Your task to perform on an android device: Go to Android settings Image 0: 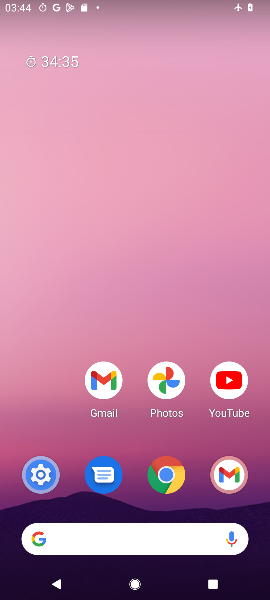
Step 0: drag from (64, 426) to (49, 144)
Your task to perform on an android device: Go to Android settings Image 1: 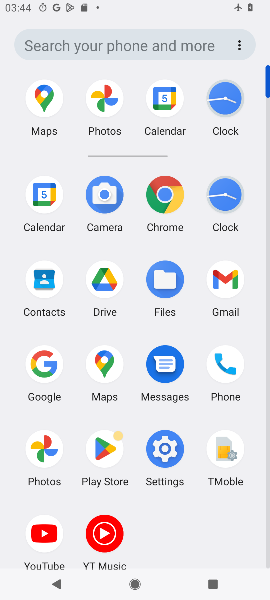
Step 1: click (167, 448)
Your task to perform on an android device: Go to Android settings Image 2: 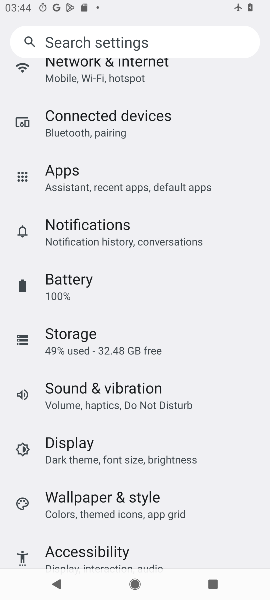
Step 2: drag from (214, 470) to (226, 353)
Your task to perform on an android device: Go to Android settings Image 3: 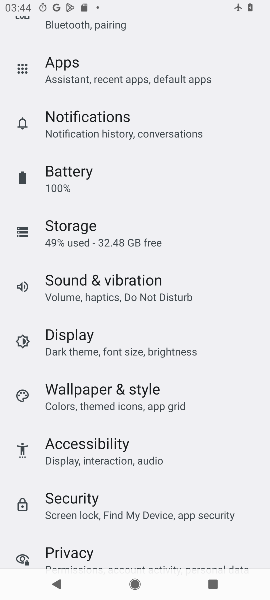
Step 3: drag from (222, 473) to (227, 359)
Your task to perform on an android device: Go to Android settings Image 4: 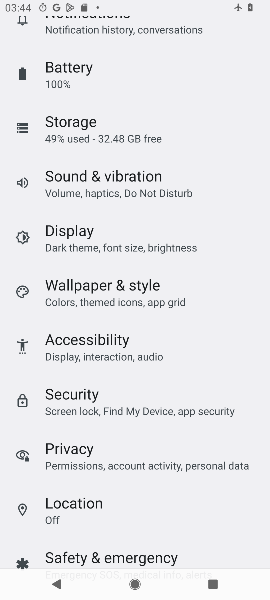
Step 4: drag from (216, 518) to (217, 407)
Your task to perform on an android device: Go to Android settings Image 5: 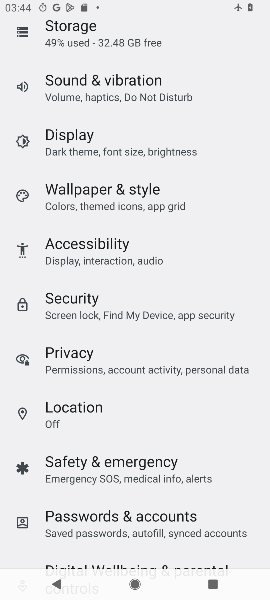
Step 5: drag from (237, 528) to (241, 406)
Your task to perform on an android device: Go to Android settings Image 6: 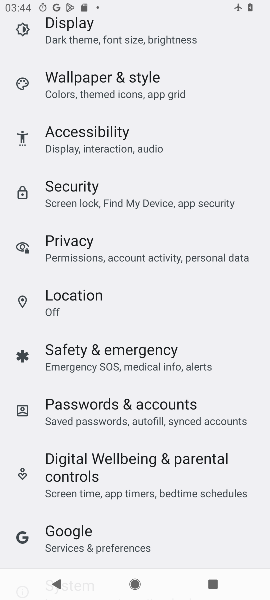
Step 6: drag from (238, 541) to (244, 412)
Your task to perform on an android device: Go to Android settings Image 7: 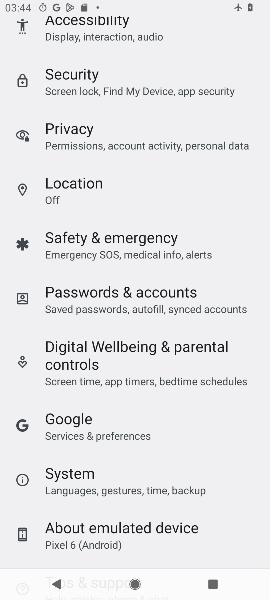
Step 7: drag from (242, 477) to (240, 295)
Your task to perform on an android device: Go to Android settings Image 8: 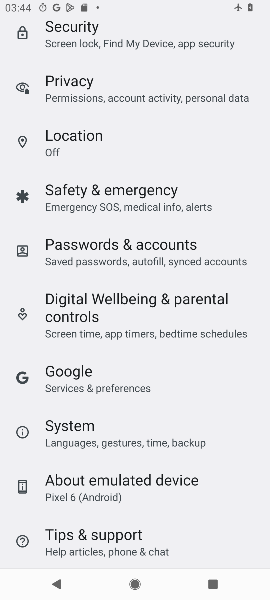
Step 8: click (145, 435)
Your task to perform on an android device: Go to Android settings Image 9: 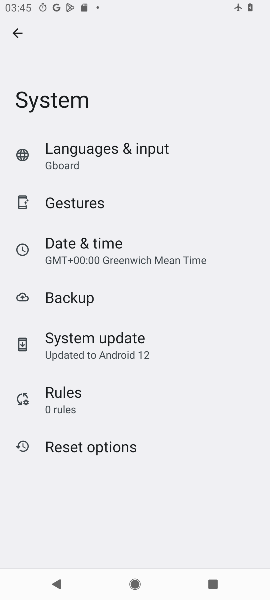
Step 9: task complete